Your task to perform on an android device: find photos in the google photos app Image 0: 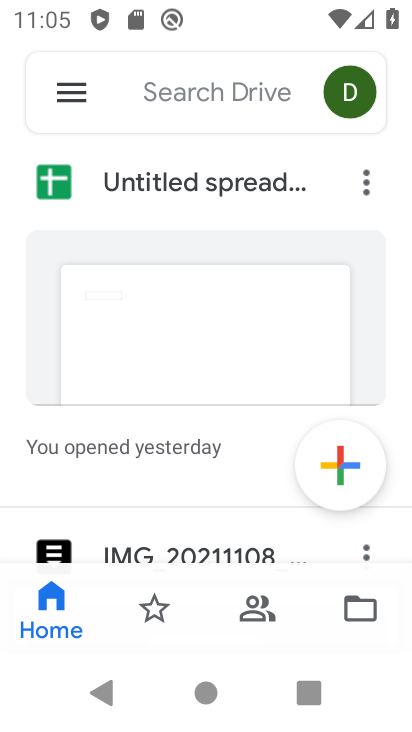
Step 0: press home button
Your task to perform on an android device: find photos in the google photos app Image 1: 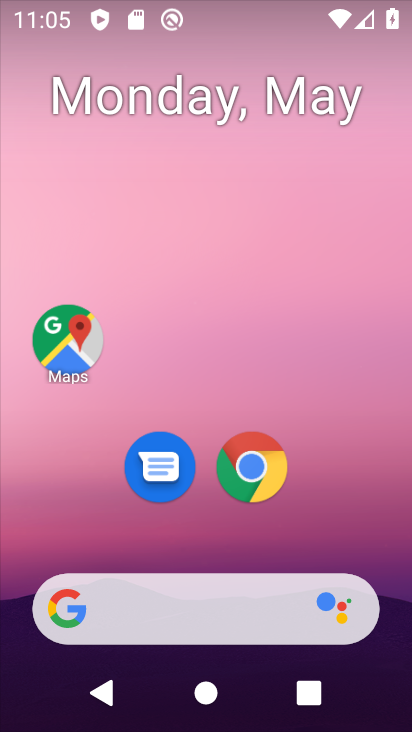
Step 1: drag from (351, 539) to (337, 20)
Your task to perform on an android device: find photos in the google photos app Image 2: 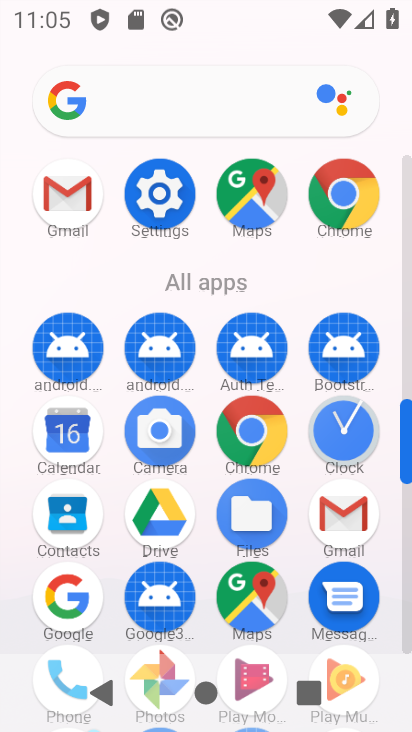
Step 2: click (172, 651)
Your task to perform on an android device: find photos in the google photos app Image 3: 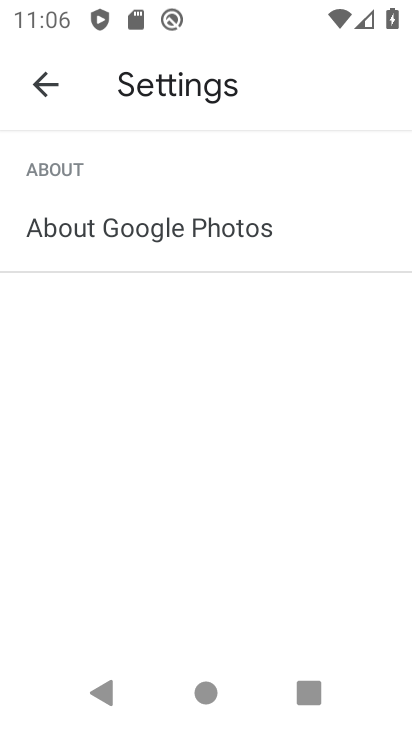
Step 3: click (34, 91)
Your task to perform on an android device: find photos in the google photos app Image 4: 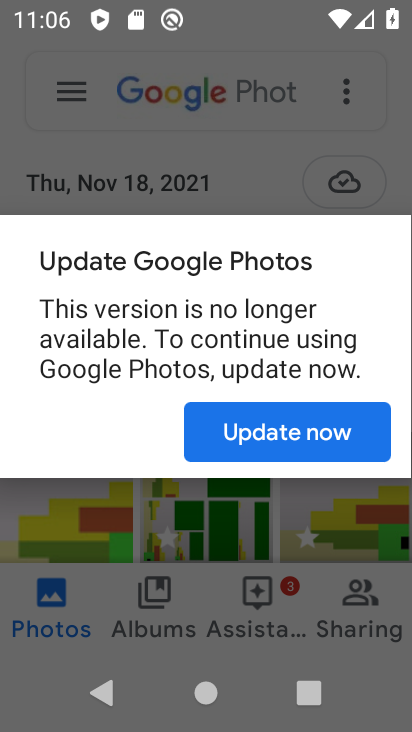
Step 4: click (235, 435)
Your task to perform on an android device: find photos in the google photos app Image 5: 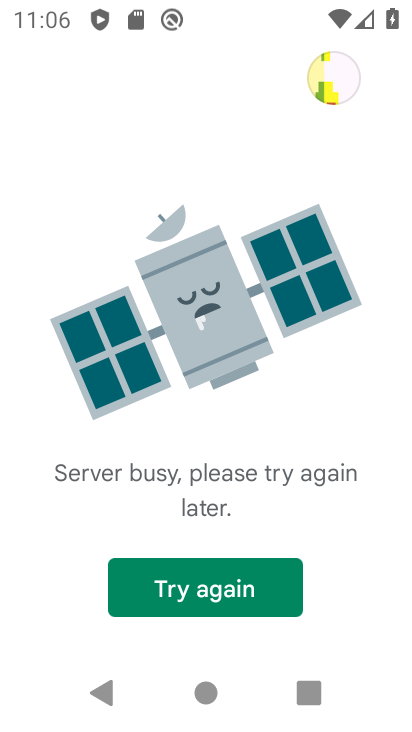
Step 5: click (250, 599)
Your task to perform on an android device: find photos in the google photos app Image 6: 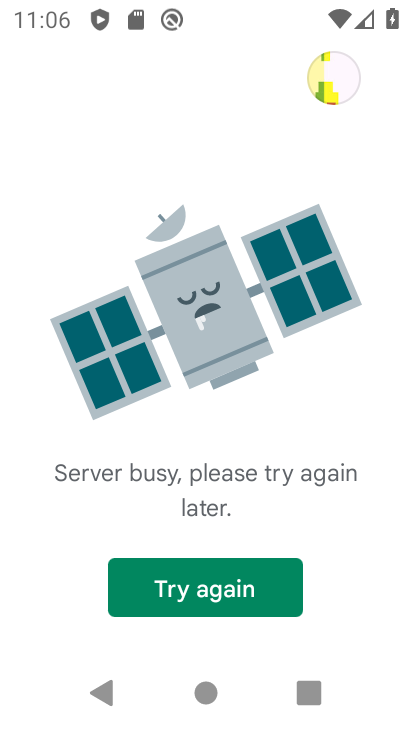
Step 6: click (250, 599)
Your task to perform on an android device: find photos in the google photos app Image 7: 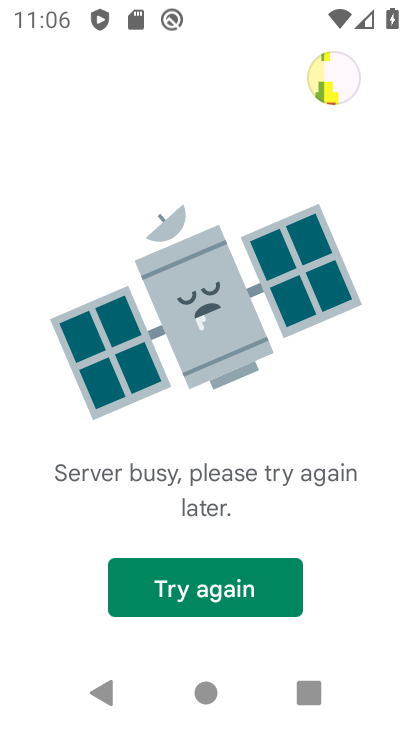
Step 7: task complete